Your task to perform on an android device: open chrome and create a bookmark for the current page Image 0: 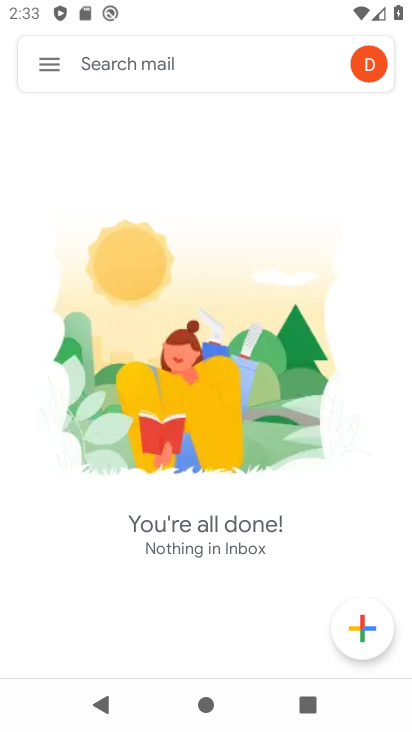
Step 0: press home button
Your task to perform on an android device: open chrome and create a bookmark for the current page Image 1: 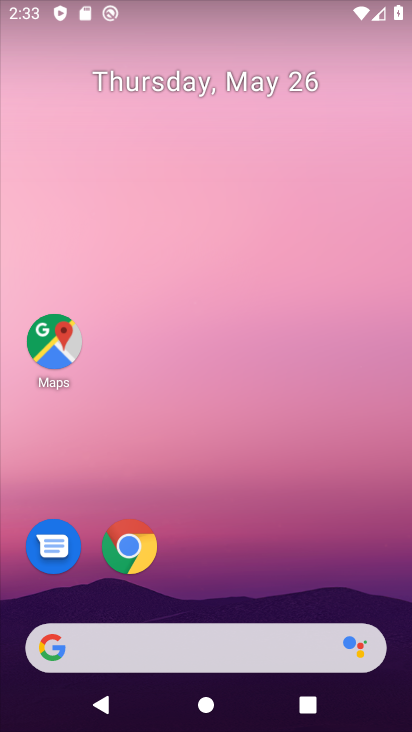
Step 1: drag from (308, 562) to (234, 77)
Your task to perform on an android device: open chrome and create a bookmark for the current page Image 2: 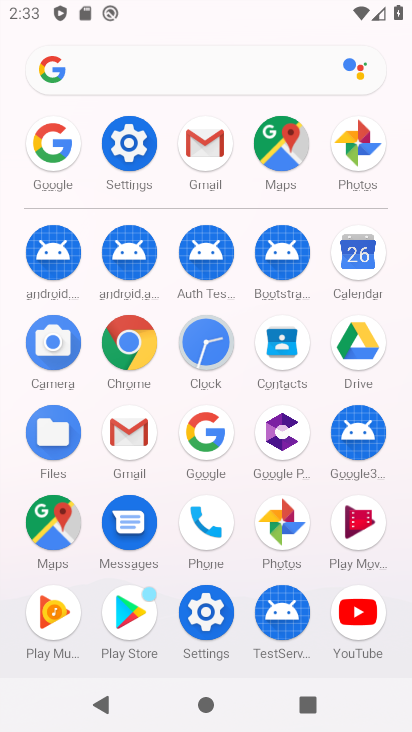
Step 2: click (132, 350)
Your task to perform on an android device: open chrome and create a bookmark for the current page Image 3: 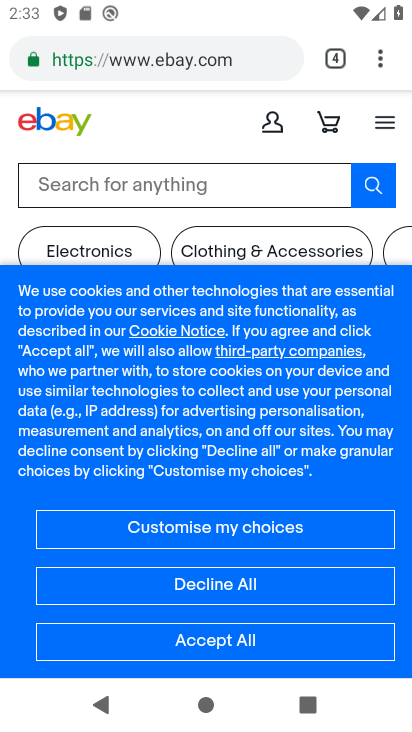
Step 3: click (377, 49)
Your task to perform on an android device: open chrome and create a bookmark for the current page Image 4: 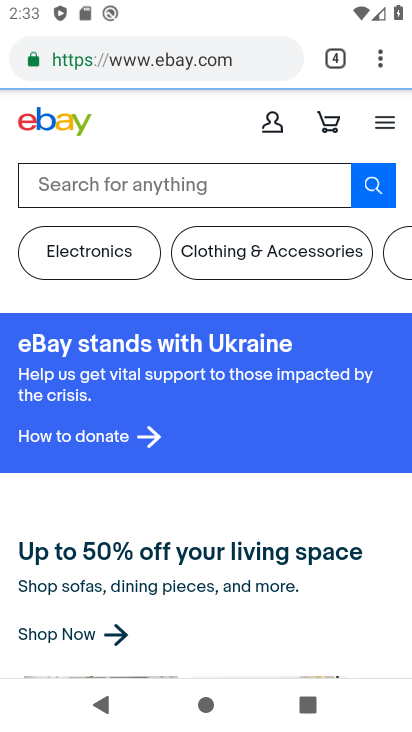
Step 4: click (374, 60)
Your task to perform on an android device: open chrome and create a bookmark for the current page Image 5: 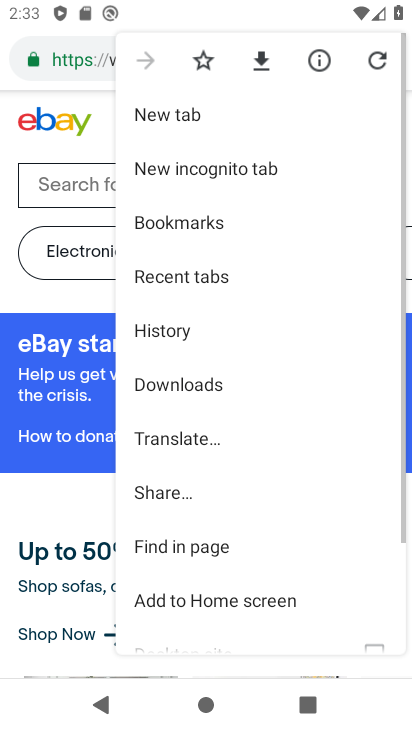
Step 5: click (200, 63)
Your task to perform on an android device: open chrome and create a bookmark for the current page Image 6: 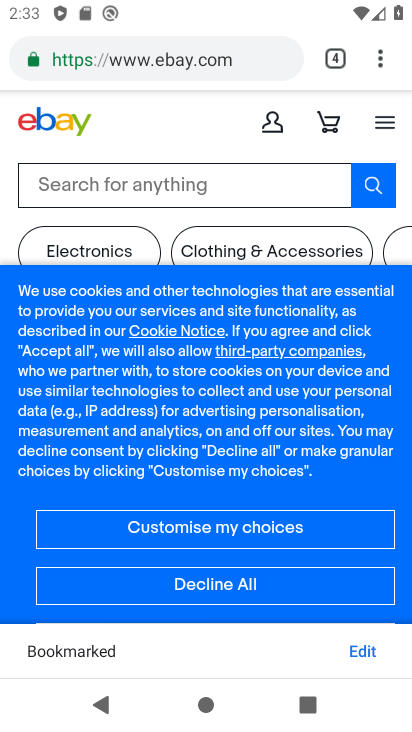
Step 6: task complete